Your task to perform on an android device: Open settings Image 0: 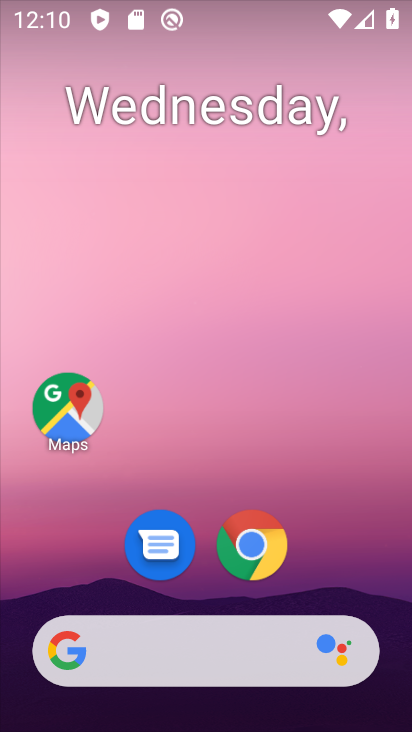
Step 0: drag from (339, 549) to (276, 6)
Your task to perform on an android device: Open settings Image 1: 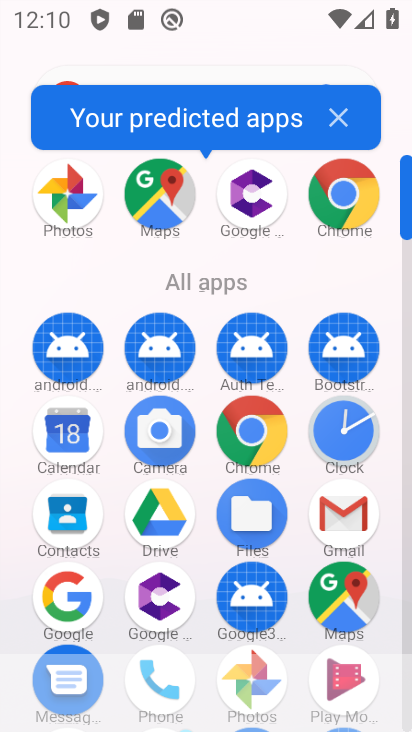
Step 1: drag from (224, 602) to (218, 417)
Your task to perform on an android device: Open settings Image 2: 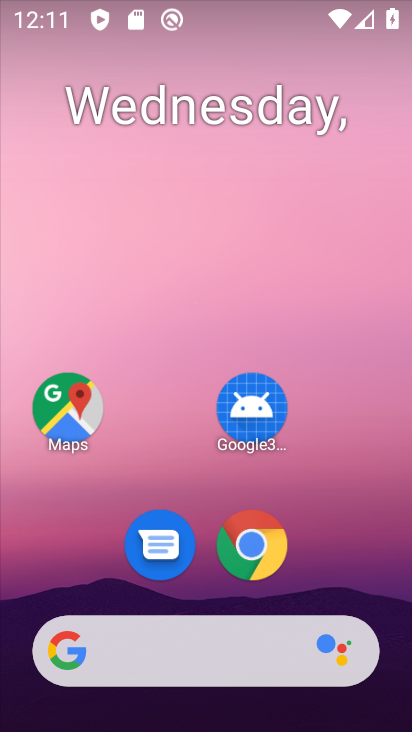
Step 2: click (345, 523)
Your task to perform on an android device: Open settings Image 3: 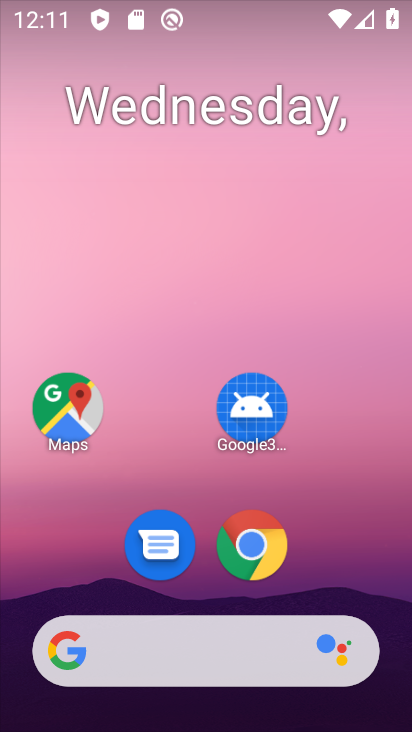
Step 3: drag from (345, 523) to (286, 249)
Your task to perform on an android device: Open settings Image 4: 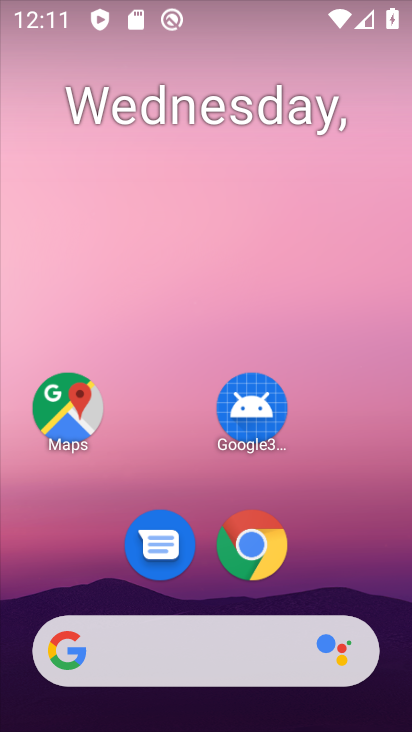
Step 4: drag from (385, 531) to (306, 162)
Your task to perform on an android device: Open settings Image 5: 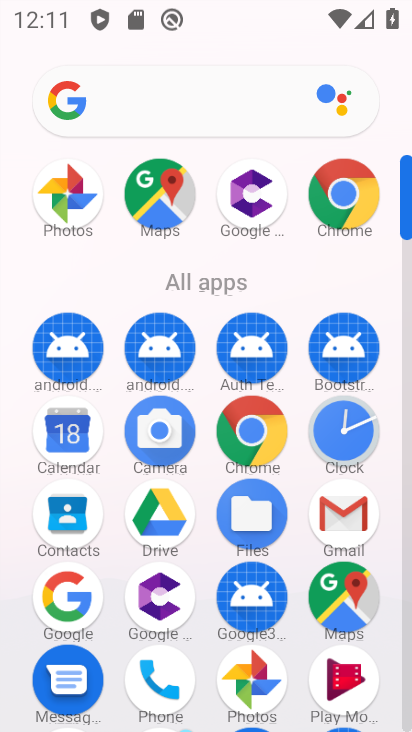
Step 5: click (404, 462)
Your task to perform on an android device: Open settings Image 6: 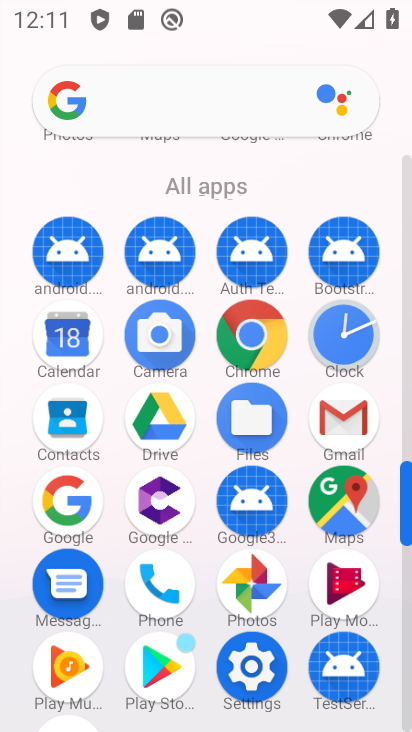
Step 6: click (240, 674)
Your task to perform on an android device: Open settings Image 7: 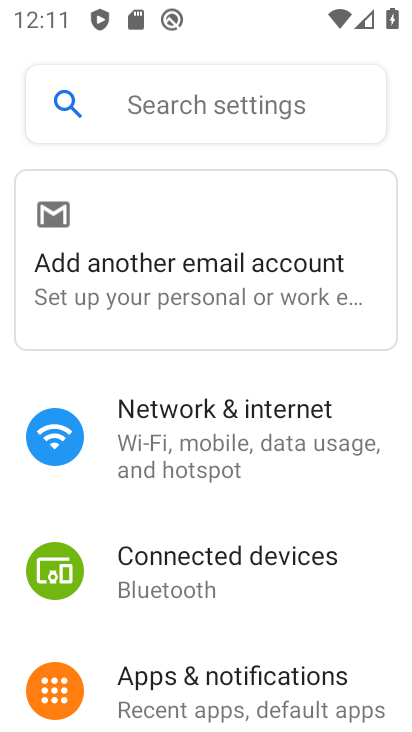
Step 7: task complete